Your task to perform on an android device: Go to Maps Image 0: 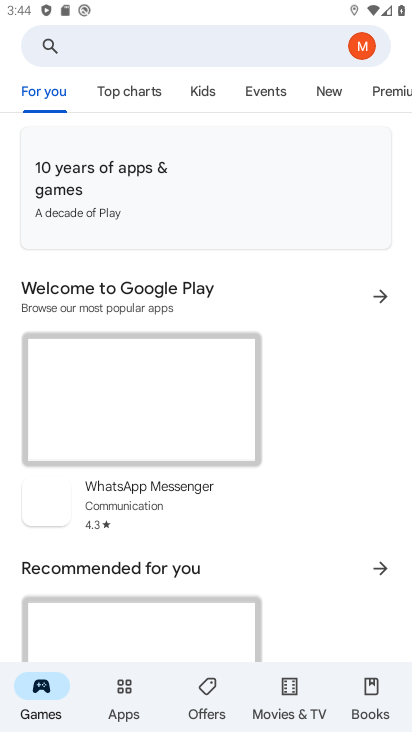
Step 0: press home button
Your task to perform on an android device: Go to Maps Image 1: 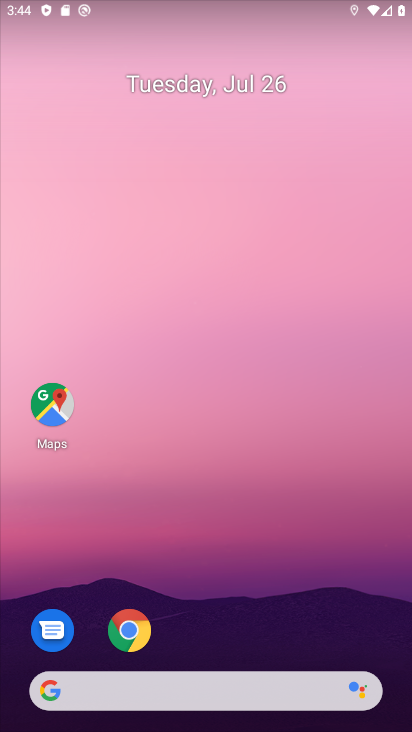
Step 1: click (51, 404)
Your task to perform on an android device: Go to Maps Image 2: 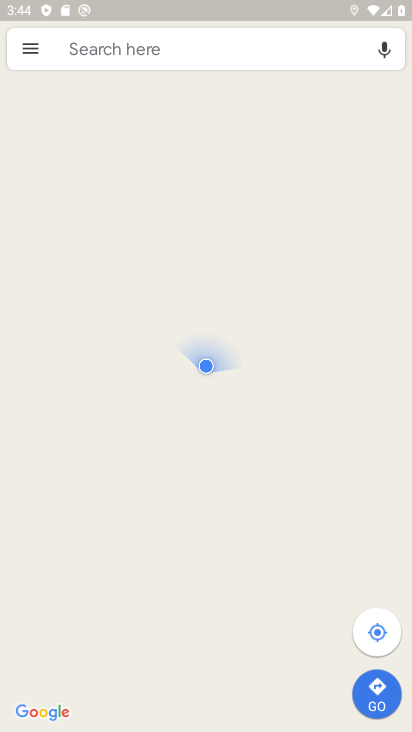
Step 2: task complete